Your task to perform on an android device: Search for pizza restaurants on Maps Image 0: 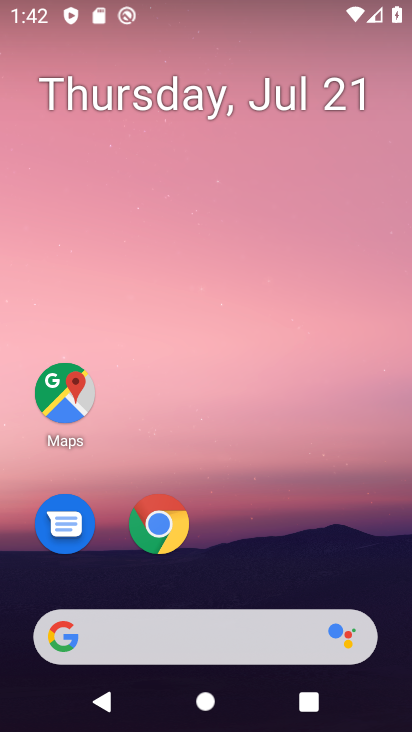
Step 0: click (51, 394)
Your task to perform on an android device: Search for pizza restaurants on Maps Image 1: 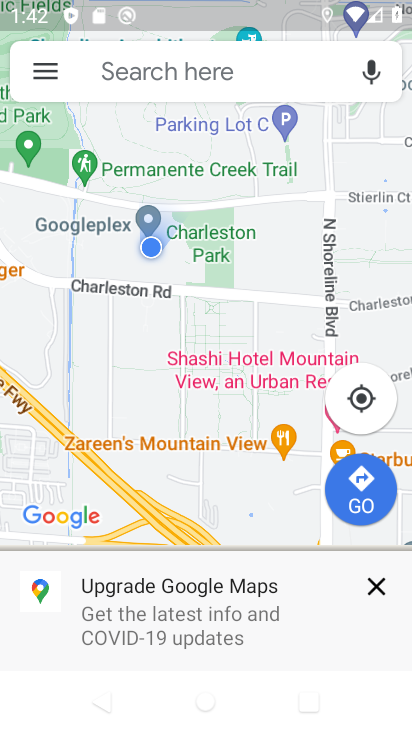
Step 1: click (185, 57)
Your task to perform on an android device: Search for pizza restaurants on Maps Image 2: 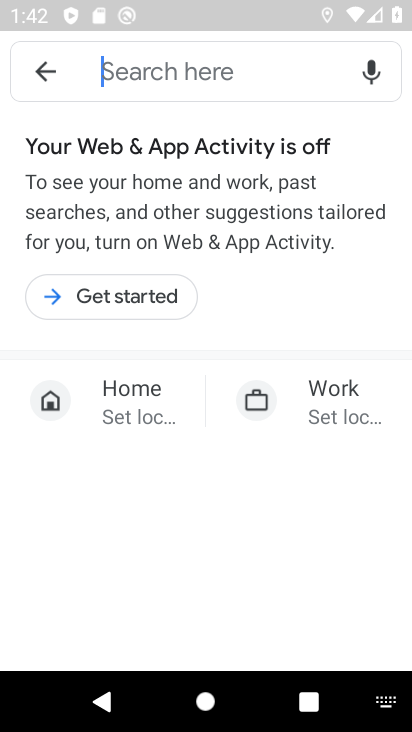
Step 2: type "pizza"
Your task to perform on an android device: Search for pizza restaurants on Maps Image 3: 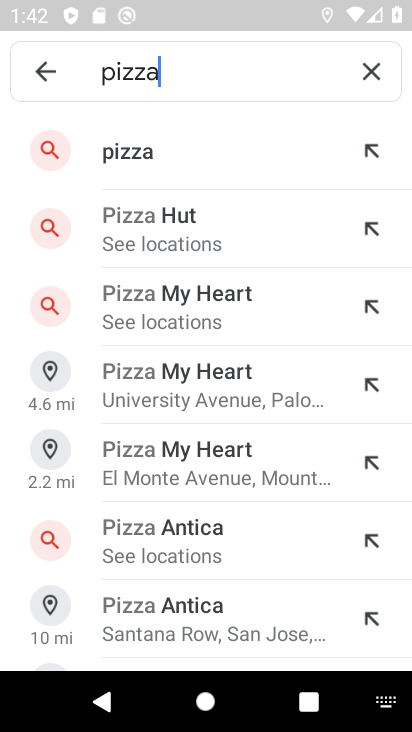
Step 3: click (147, 151)
Your task to perform on an android device: Search for pizza restaurants on Maps Image 4: 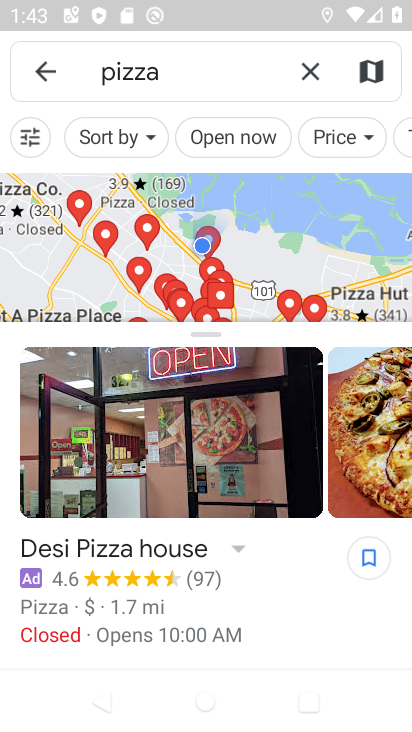
Step 4: task complete